Your task to perform on an android device: Toggle the flashlight Image 0: 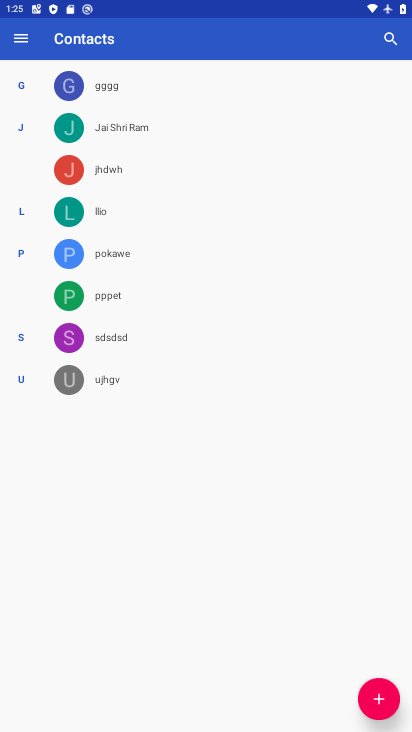
Step 0: drag from (325, 635) to (280, 164)
Your task to perform on an android device: Toggle the flashlight Image 1: 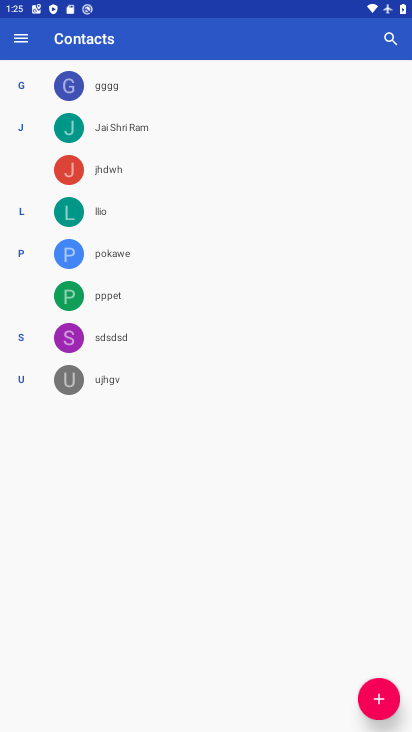
Step 1: press home button
Your task to perform on an android device: Toggle the flashlight Image 2: 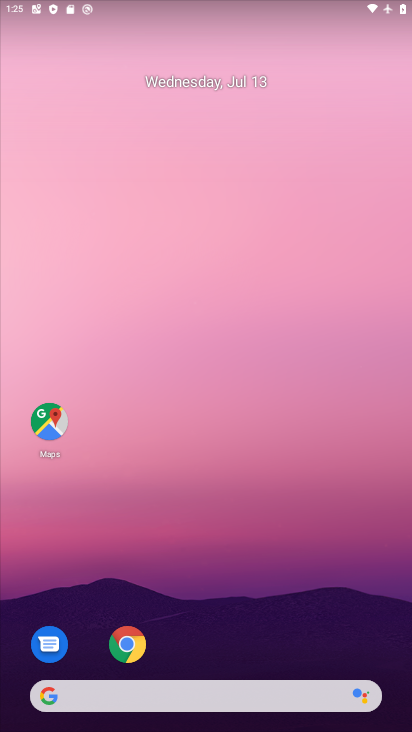
Step 2: drag from (257, 604) to (262, 106)
Your task to perform on an android device: Toggle the flashlight Image 3: 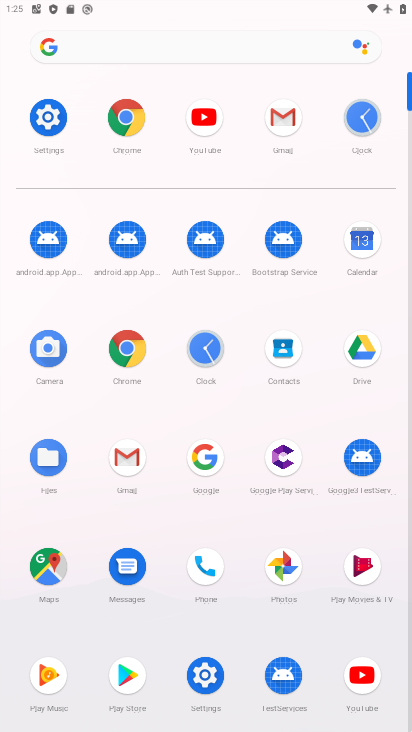
Step 3: click (50, 112)
Your task to perform on an android device: Toggle the flashlight Image 4: 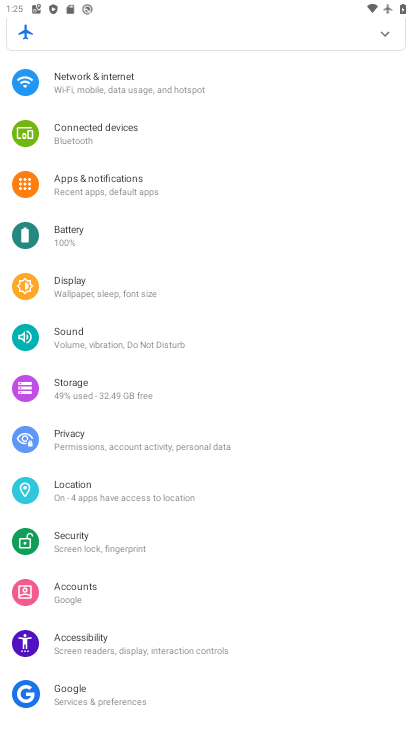
Step 4: click (85, 290)
Your task to perform on an android device: Toggle the flashlight Image 5: 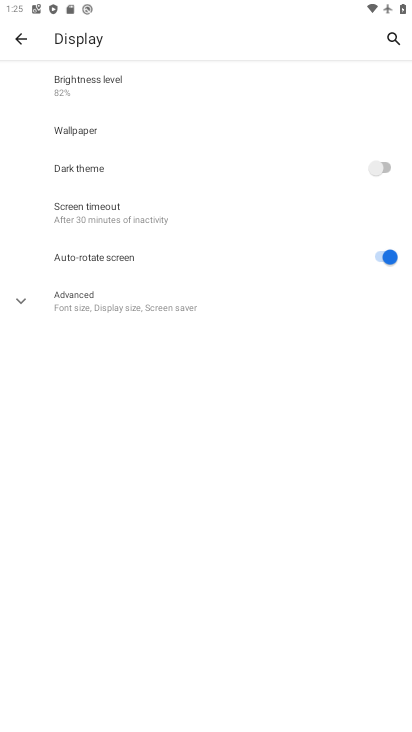
Step 5: click (101, 210)
Your task to perform on an android device: Toggle the flashlight Image 6: 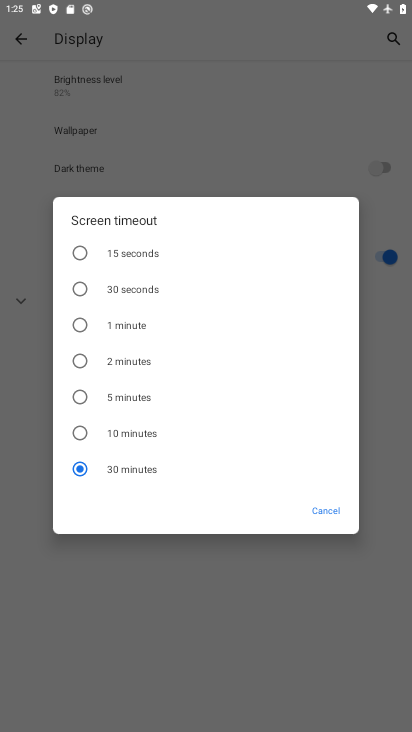
Step 6: task complete